Your task to perform on an android device: Open Google Maps and go to "Timeline" Image 0: 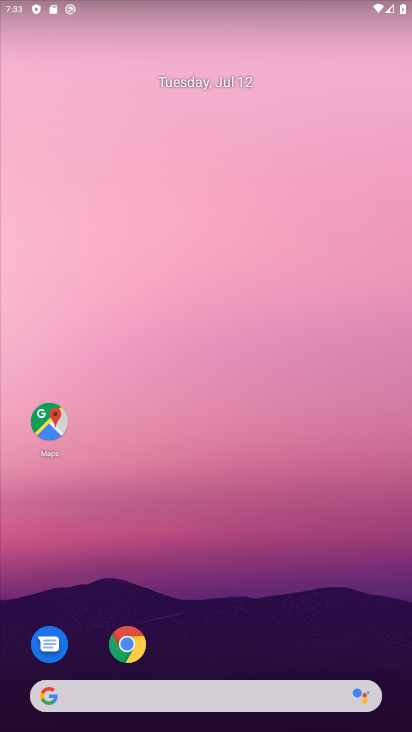
Step 0: drag from (207, 646) to (266, 8)
Your task to perform on an android device: Open Google Maps and go to "Timeline" Image 1: 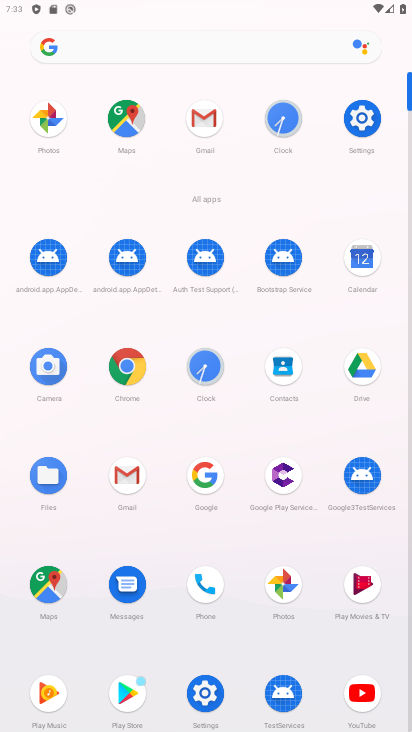
Step 1: click (51, 586)
Your task to perform on an android device: Open Google Maps and go to "Timeline" Image 2: 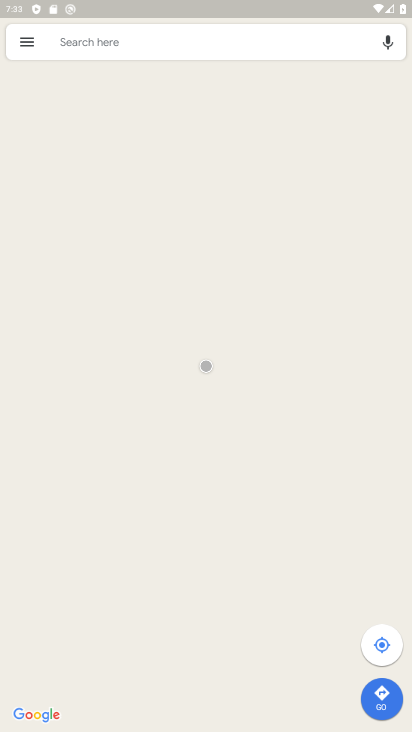
Step 2: click (23, 41)
Your task to perform on an android device: Open Google Maps and go to "Timeline" Image 3: 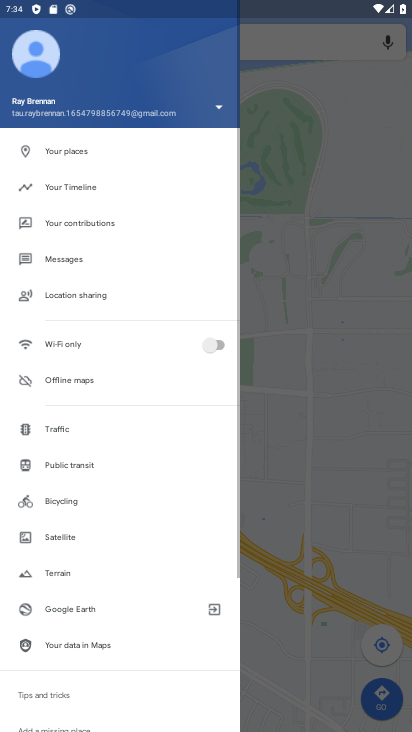
Step 3: click (25, 38)
Your task to perform on an android device: Open Google Maps and go to "Timeline" Image 4: 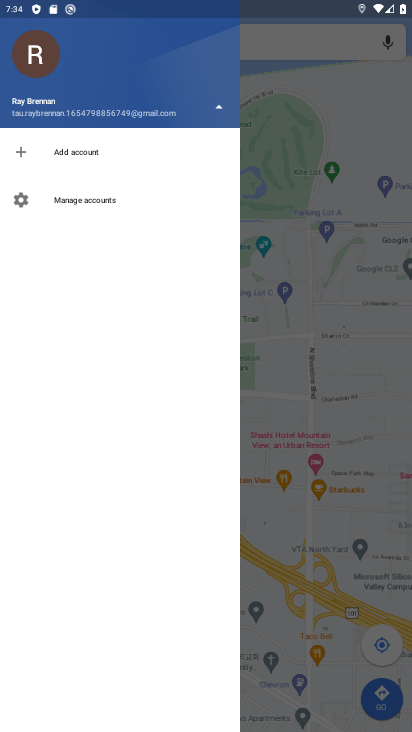
Step 4: click (101, 106)
Your task to perform on an android device: Open Google Maps and go to "Timeline" Image 5: 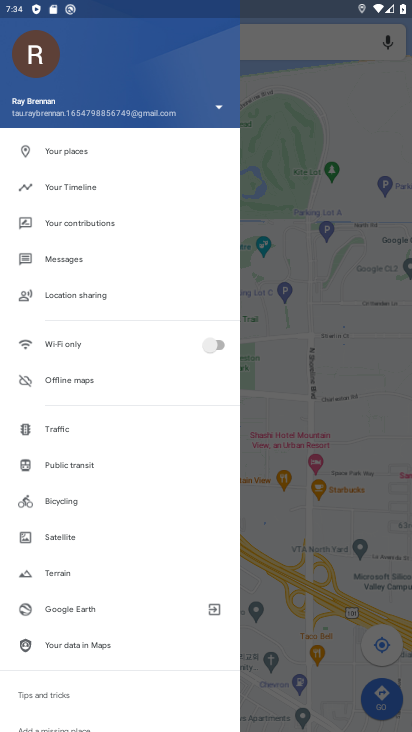
Step 5: click (70, 187)
Your task to perform on an android device: Open Google Maps and go to "Timeline" Image 6: 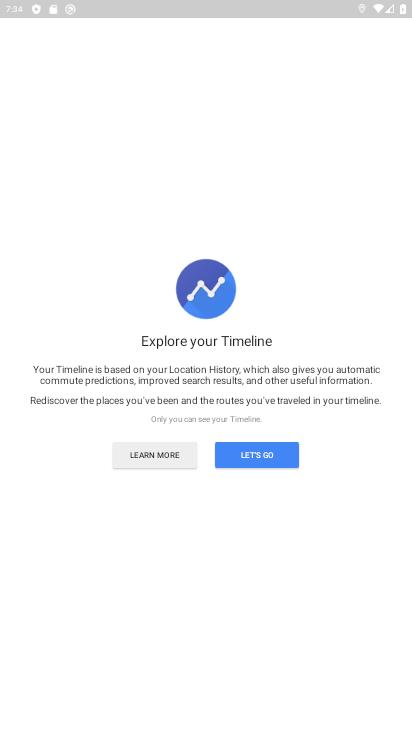
Step 6: click (248, 463)
Your task to perform on an android device: Open Google Maps and go to "Timeline" Image 7: 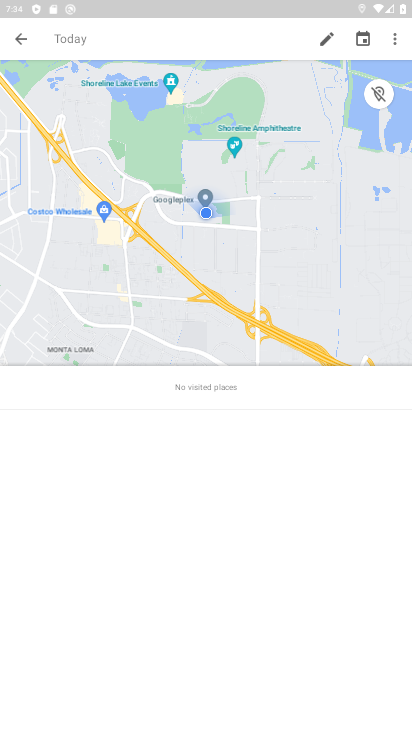
Step 7: task complete